Your task to perform on an android device: Open Google Image 0: 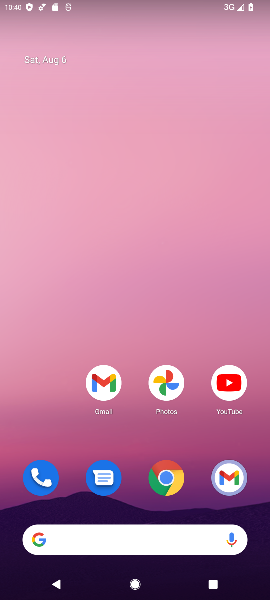
Step 0: drag from (127, 521) to (123, 11)
Your task to perform on an android device: Open Google Image 1: 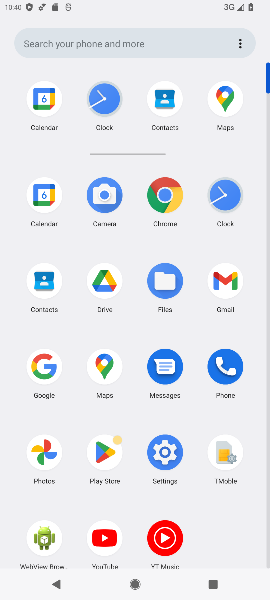
Step 1: click (44, 365)
Your task to perform on an android device: Open Google Image 2: 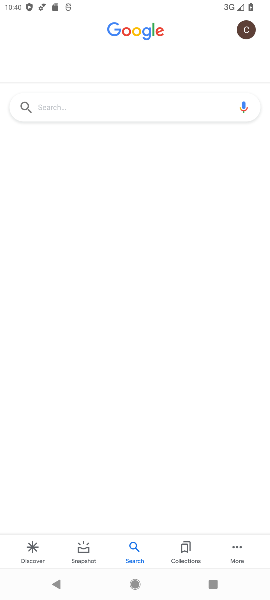
Step 2: task complete